Your task to perform on an android device: turn off location history Image 0: 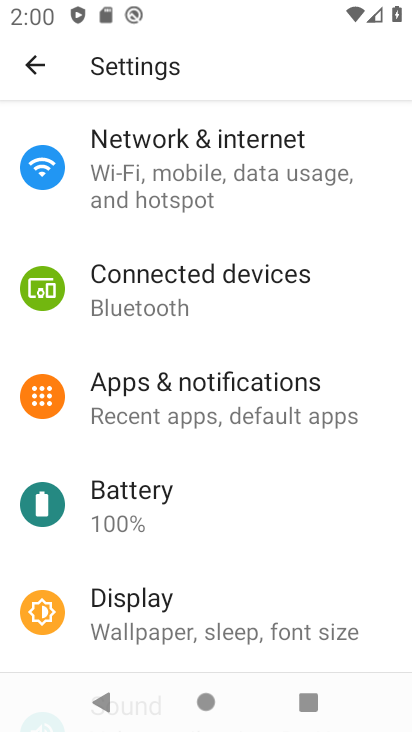
Step 0: press home button
Your task to perform on an android device: turn off location history Image 1: 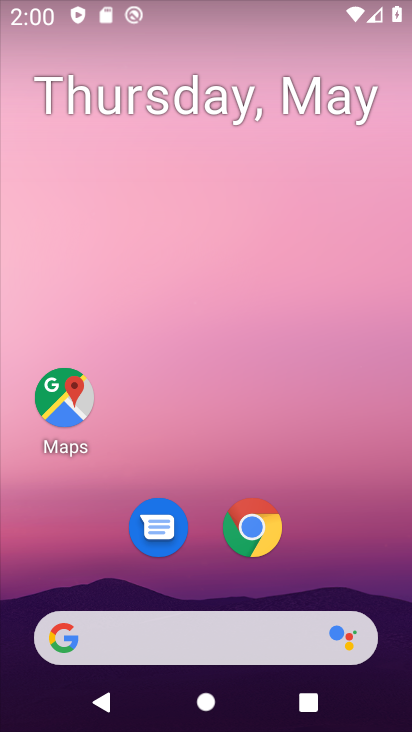
Step 1: click (19, 378)
Your task to perform on an android device: turn off location history Image 2: 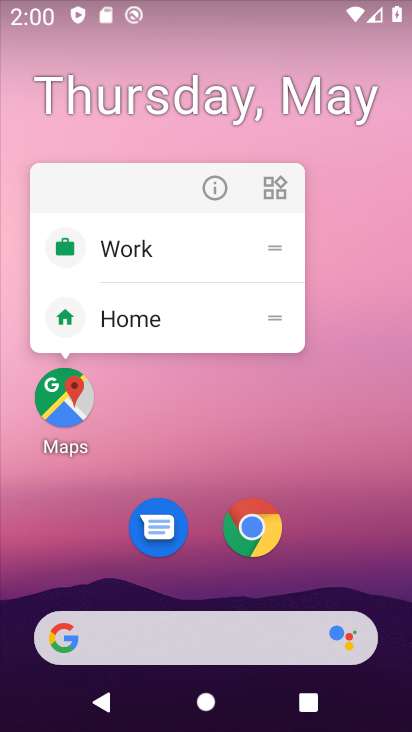
Step 2: click (45, 381)
Your task to perform on an android device: turn off location history Image 3: 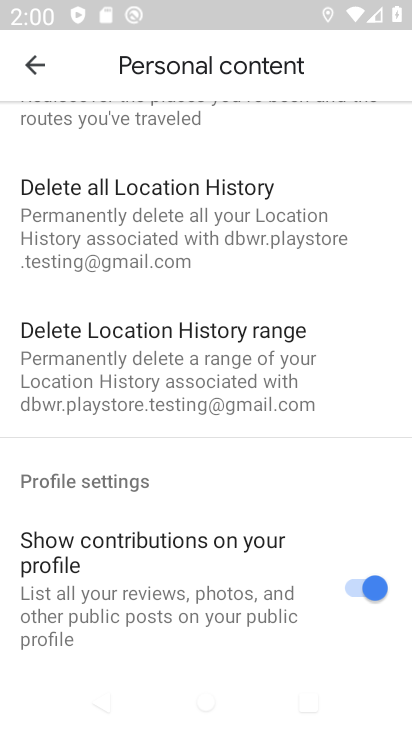
Step 3: drag from (246, 210) to (214, 691)
Your task to perform on an android device: turn off location history Image 4: 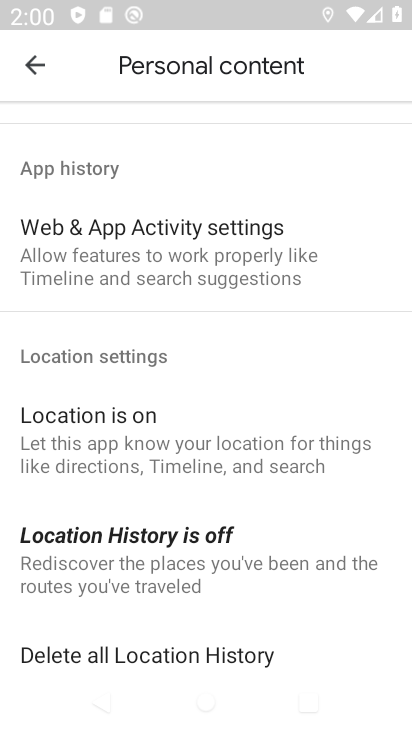
Step 4: click (171, 196)
Your task to perform on an android device: turn off location history Image 5: 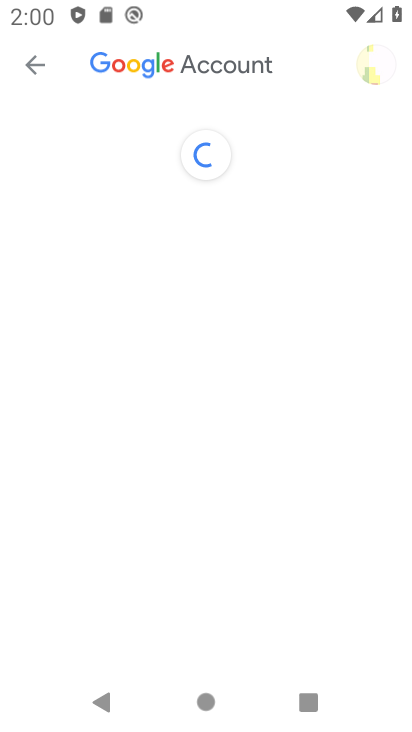
Step 5: press back button
Your task to perform on an android device: turn off location history Image 6: 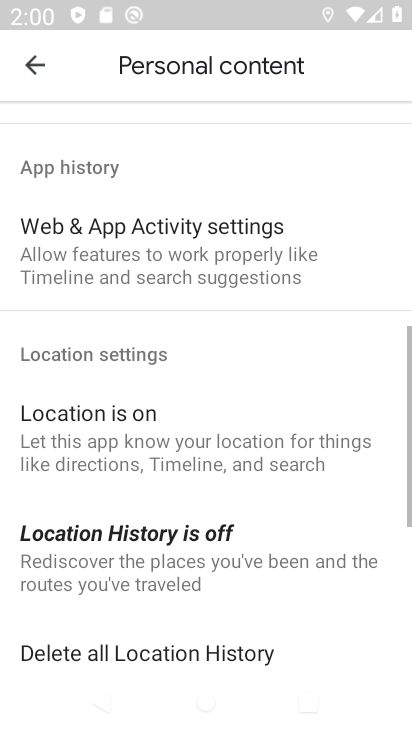
Step 6: drag from (182, 592) to (166, 416)
Your task to perform on an android device: turn off location history Image 7: 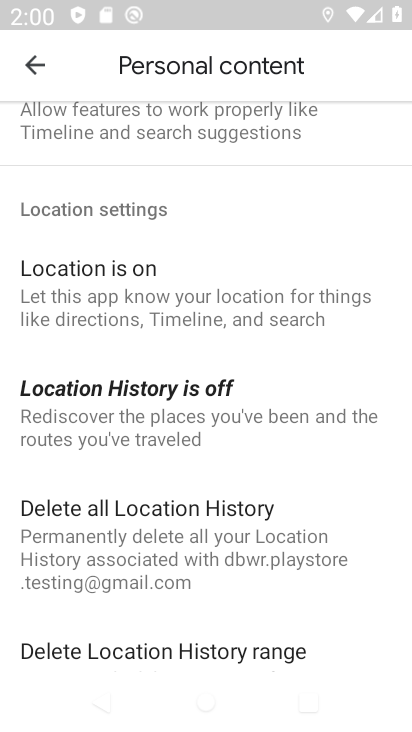
Step 7: click (256, 382)
Your task to perform on an android device: turn off location history Image 8: 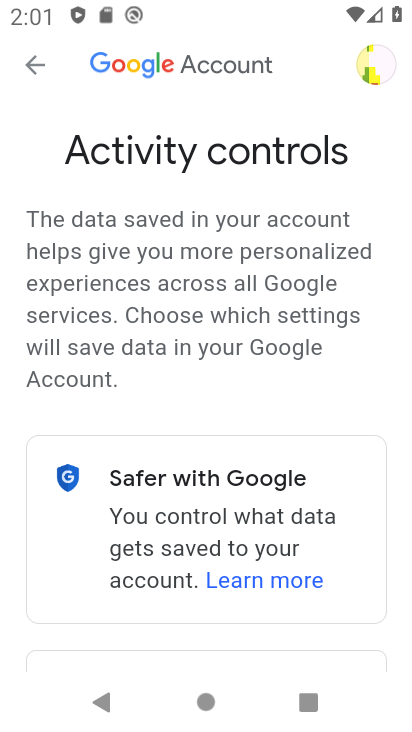
Step 8: task complete